Your task to perform on an android device: Go to sound settings Image 0: 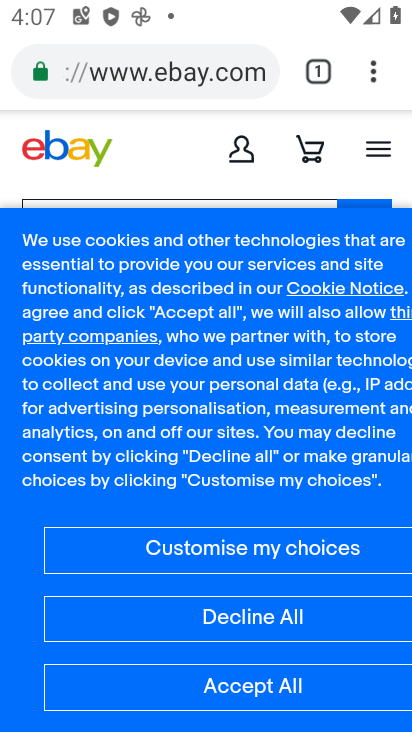
Step 0: press home button
Your task to perform on an android device: Go to sound settings Image 1: 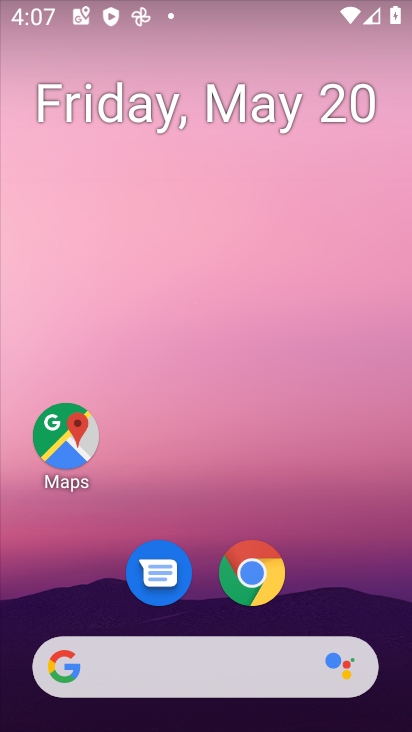
Step 1: drag from (390, 619) to (334, 43)
Your task to perform on an android device: Go to sound settings Image 2: 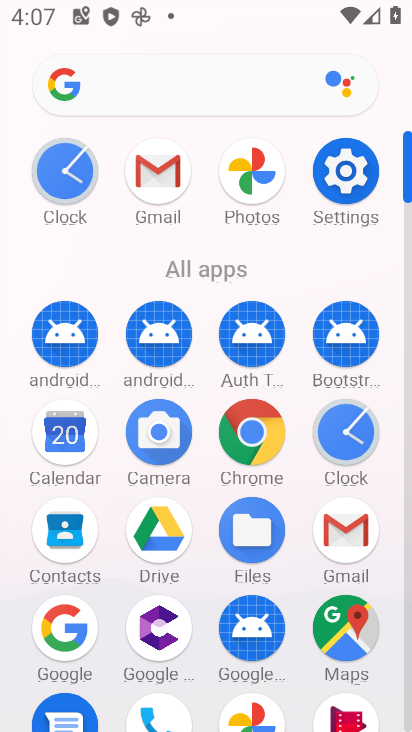
Step 2: click (408, 706)
Your task to perform on an android device: Go to sound settings Image 3: 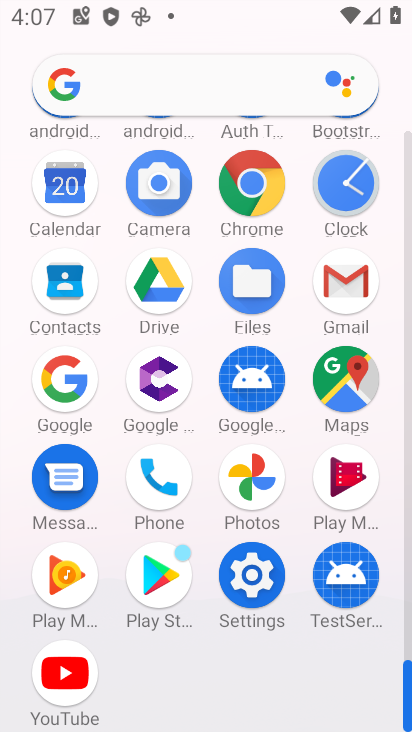
Step 3: click (254, 572)
Your task to perform on an android device: Go to sound settings Image 4: 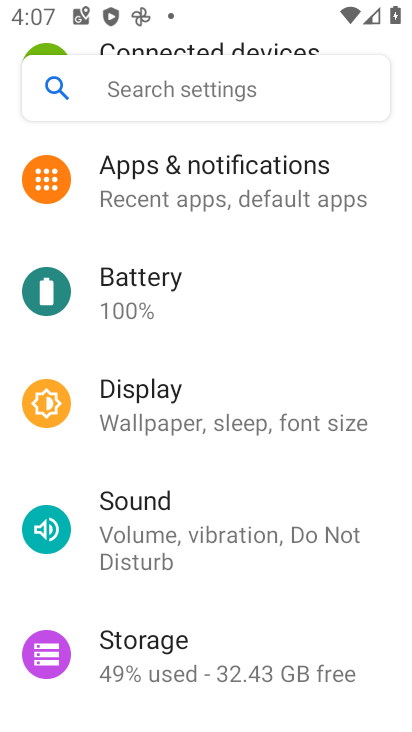
Step 4: click (154, 513)
Your task to perform on an android device: Go to sound settings Image 5: 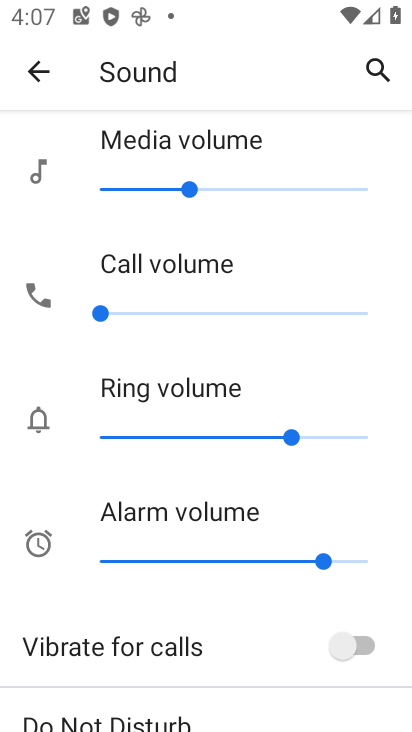
Step 5: drag from (248, 651) to (263, 299)
Your task to perform on an android device: Go to sound settings Image 6: 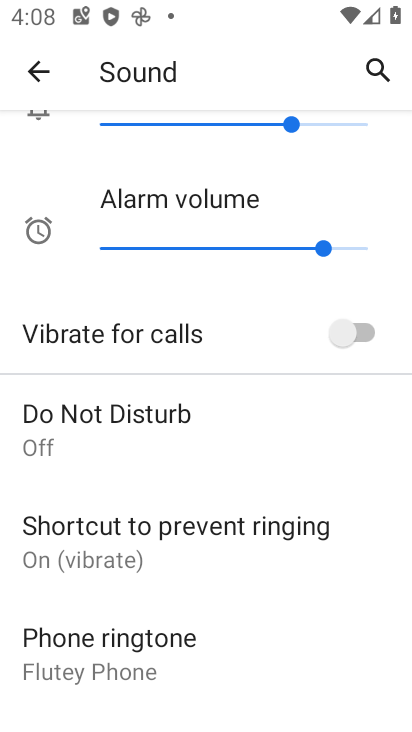
Step 6: drag from (270, 582) to (257, 277)
Your task to perform on an android device: Go to sound settings Image 7: 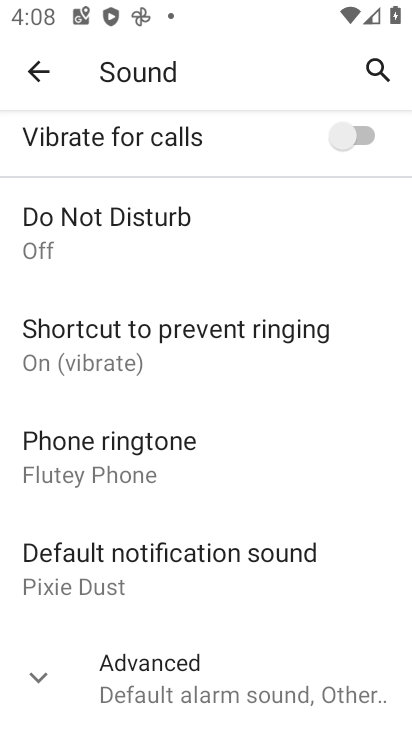
Step 7: click (39, 676)
Your task to perform on an android device: Go to sound settings Image 8: 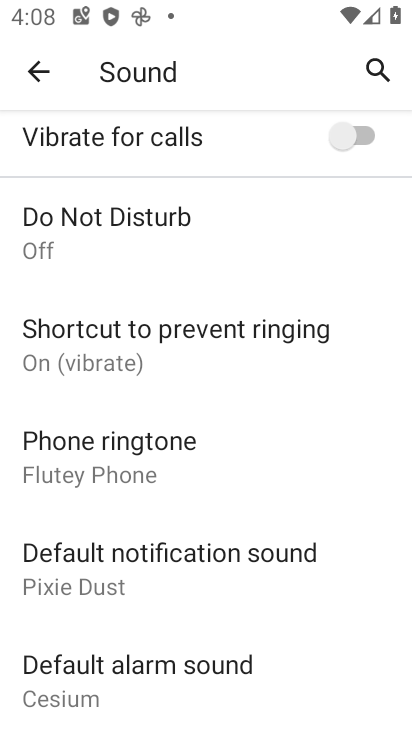
Step 8: task complete